Your task to perform on an android device: check out phone information Image 0: 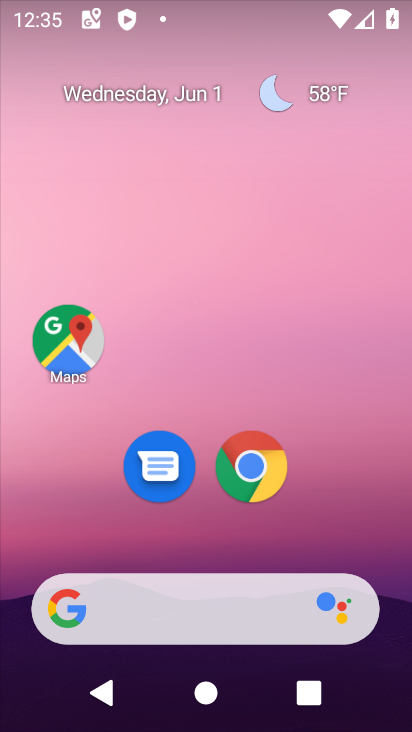
Step 0: drag from (386, 520) to (374, 134)
Your task to perform on an android device: check out phone information Image 1: 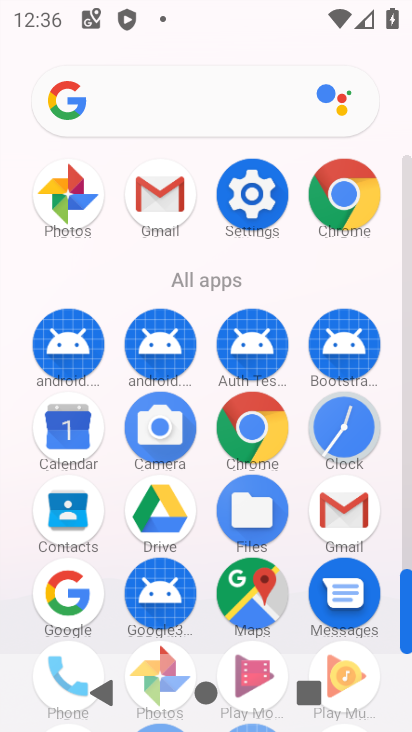
Step 1: click (254, 203)
Your task to perform on an android device: check out phone information Image 2: 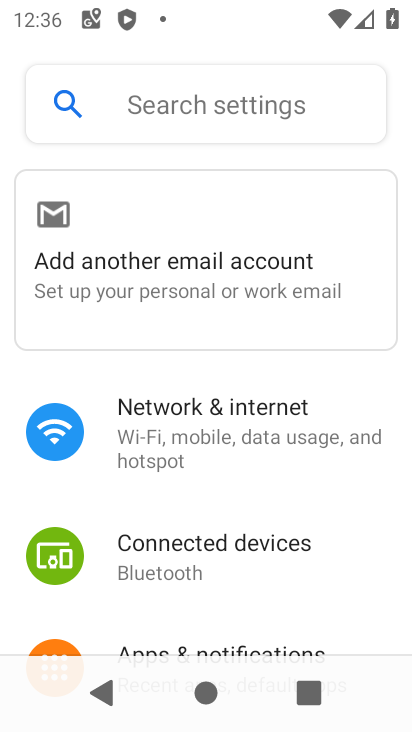
Step 2: drag from (244, 610) to (223, 107)
Your task to perform on an android device: check out phone information Image 3: 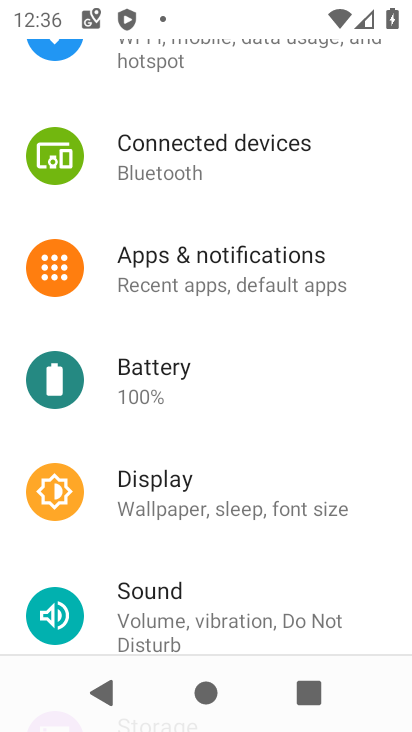
Step 3: drag from (278, 587) to (228, 0)
Your task to perform on an android device: check out phone information Image 4: 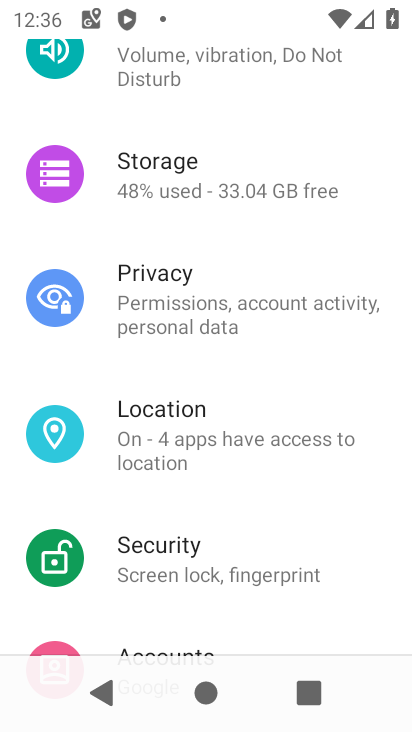
Step 4: drag from (248, 562) to (252, 19)
Your task to perform on an android device: check out phone information Image 5: 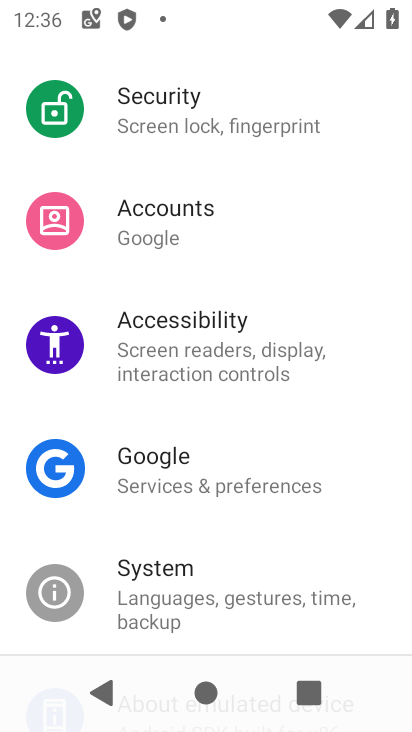
Step 5: drag from (215, 613) to (197, 225)
Your task to perform on an android device: check out phone information Image 6: 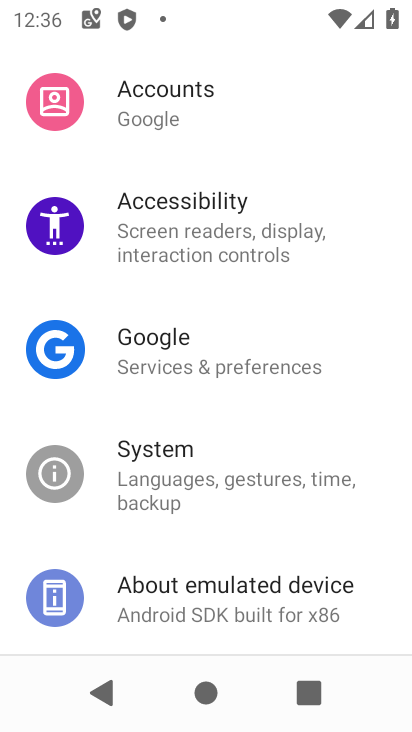
Step 6: click (269, 584)
Your task to perform on an android device: check out phone information Image 7: 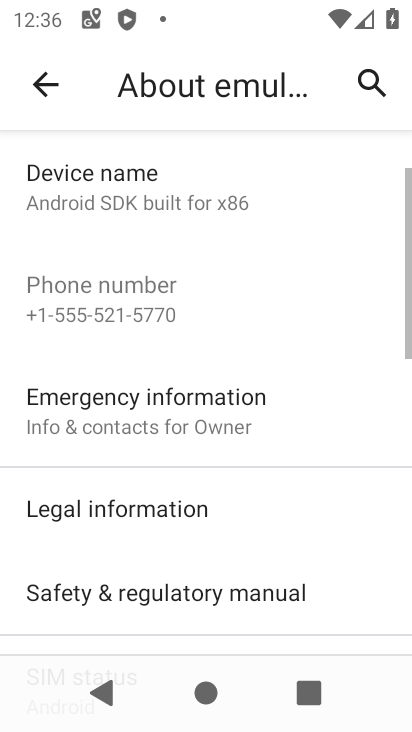
Step 7: task complete